Your task to perform on an android device: Do I have any events tomorrow? Image 0: 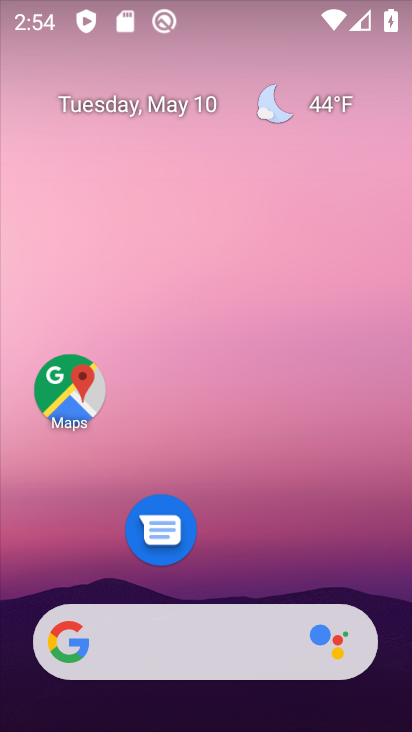
Step 0: drag from (242, 543) to (231, 45)
Your task to perform on an android device: Do I have any events tomorrow? Image 1: 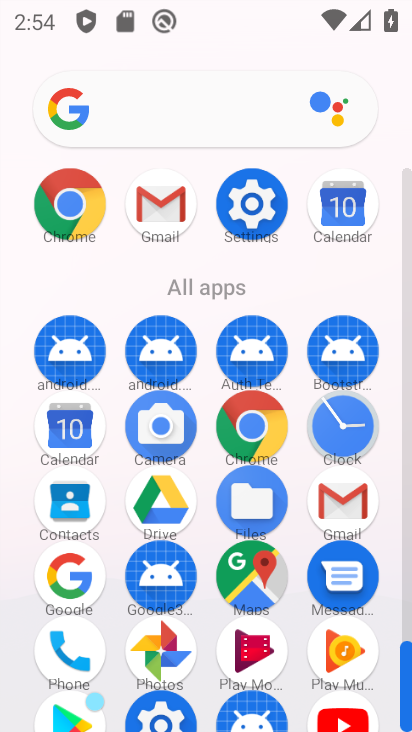
Step 1: click (73, 420)
Your task to perform on an android device: Do I have any events tomorrow? Image 2: 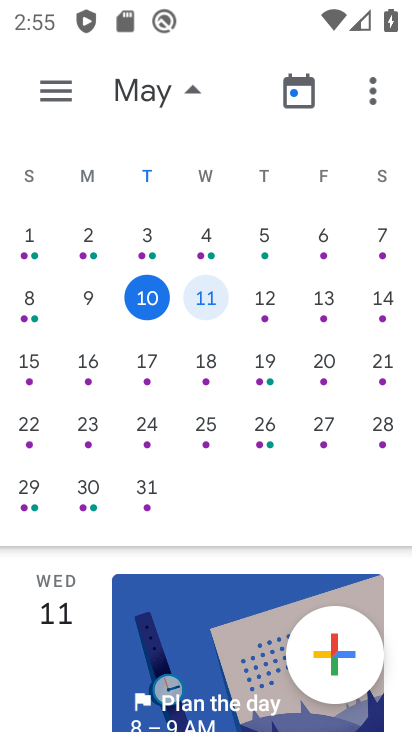
Step 2: click (210, 301)
Your task to perform on an android device: Do I have any events tomorrow? Image 3: 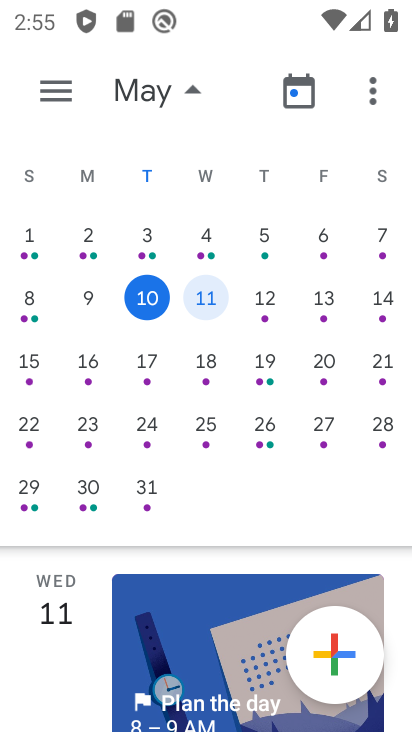
Step 3: task complete